Your task to perform on an android device: Turn off the flashlight Image 0: 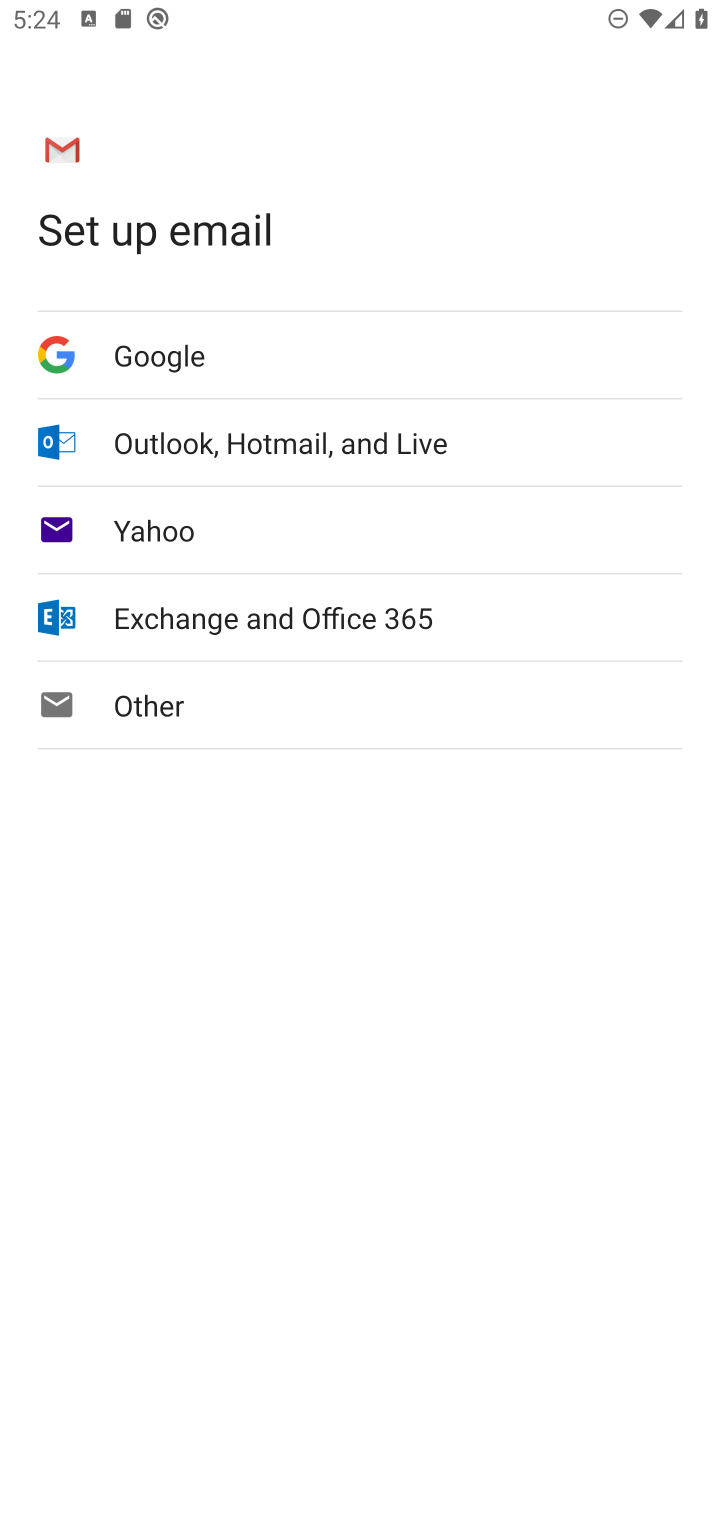
Step 0: press home button
Your task to perform on an android device: Turn off the flashlight Image 1: 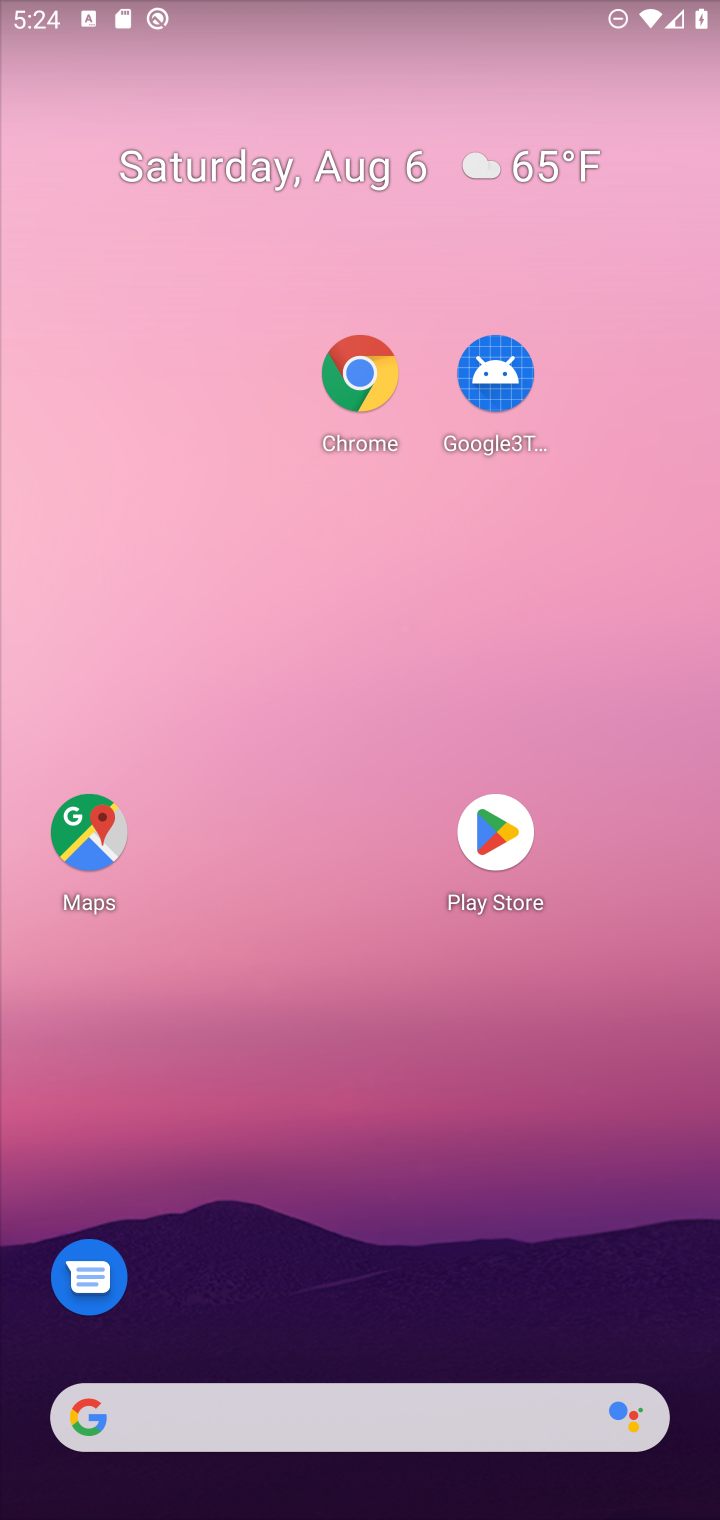
Step 1: task complete